Your task to perform on an android device: read, delete, or share a saved page in the chrome app Image 0: 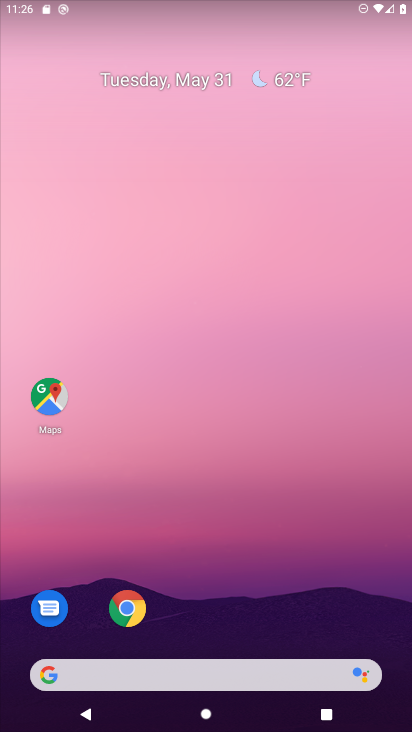
Step 0: drag from (407, 593) to (331, 112)
Your task to perform on an android device: read, delete, or share a saved page in the chrome app Image 1: 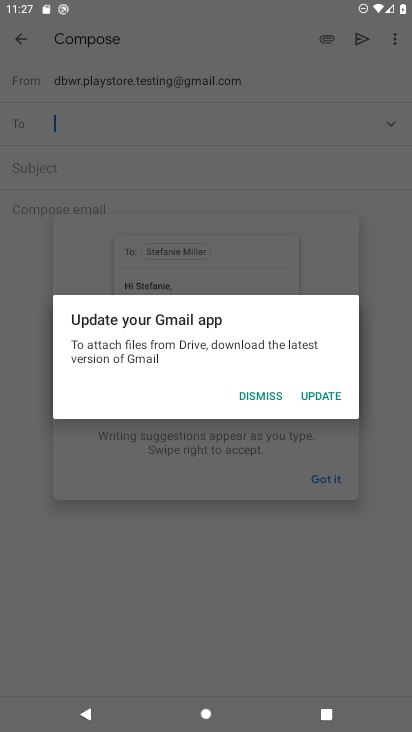
Step 1: press home button
Your task to perform on an android device: read, delete, or share a saved page in the chrome app Image 2: 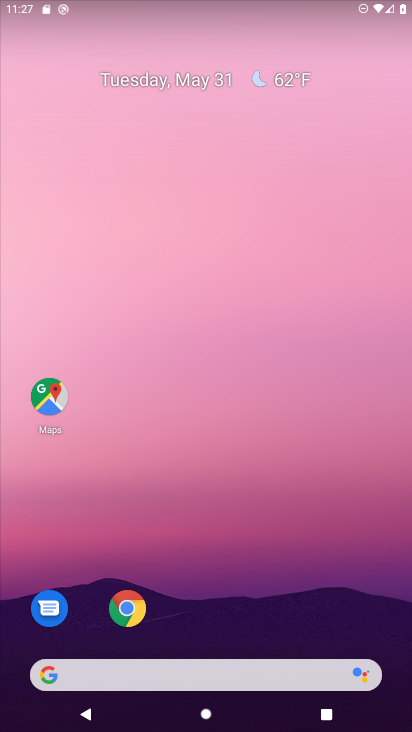
Step 2: drag from (335, 604) to (309, 169)
Your task to perform on an android device: read, delete, or share a saved page in the chrome app Image 3: 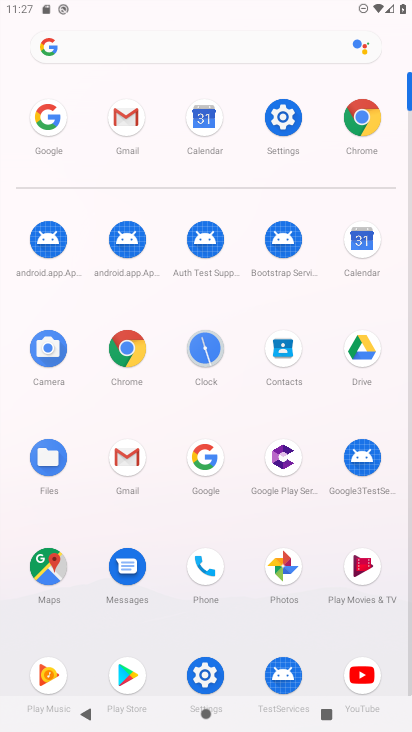
Step 3: drag from (313, 627) to (297, 290)
Your task to perform on an android device: read, delete, or share a saved page in the chrome app Image 4: 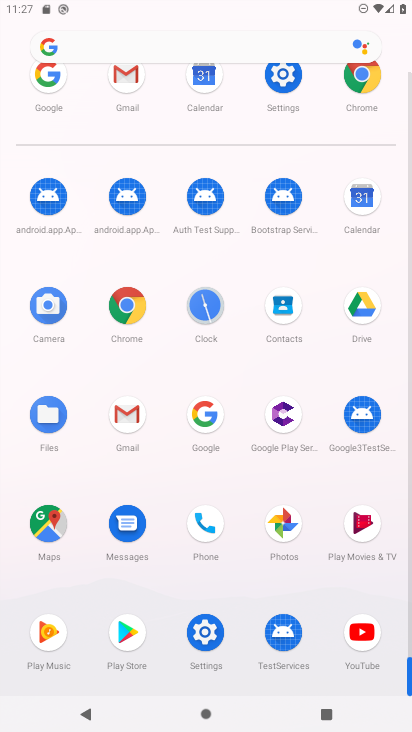
Step 4: click (142, 312)
Your task to perform on an android device: read, delete, or share a saved page in the chrome app Image 5: 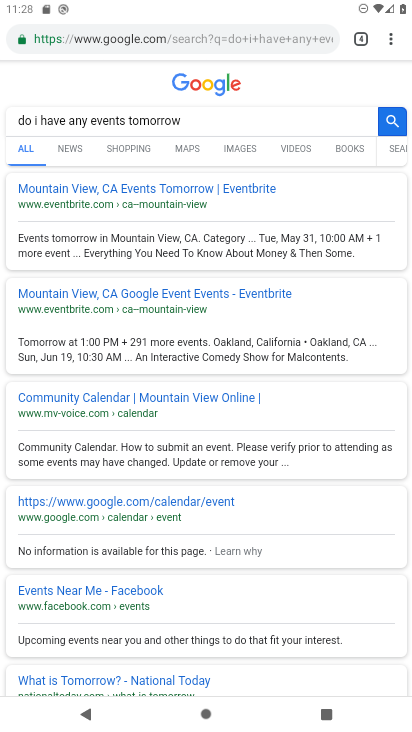
Step 5: task complete